Your task to perform on an android device: Go to Google Image 0: 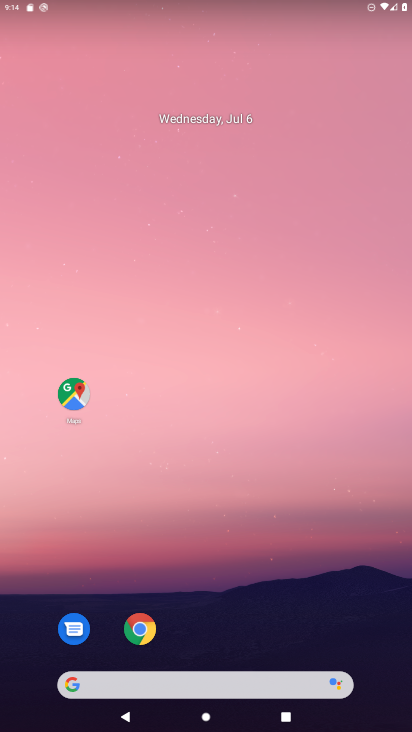
Step 0: drag from (324, 665) to (313, 23)
Your task to perform on an android device: Go to Google Image 1: 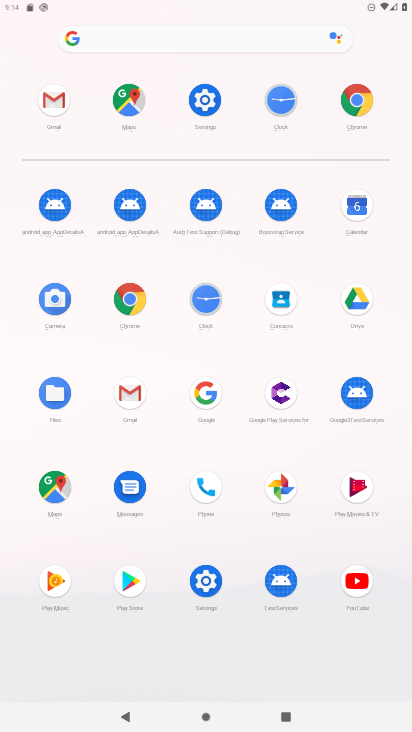
Step 1: click (203, 379)
Your task to perform on an android device: Go to Google Image 2: 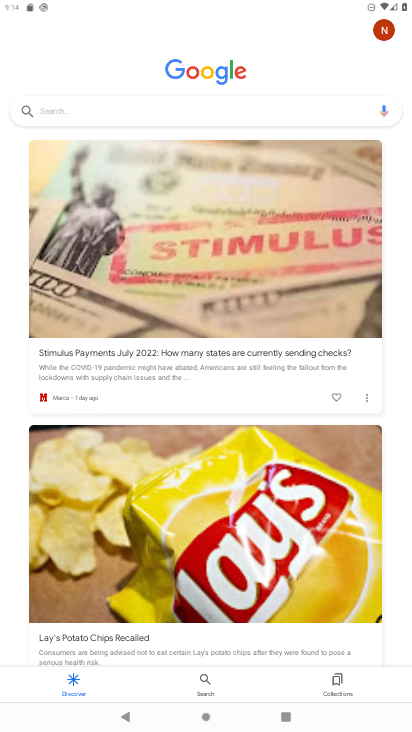
Step 2: task complete